Your task to perform on an android device: star an email in the gmail app Image 0: 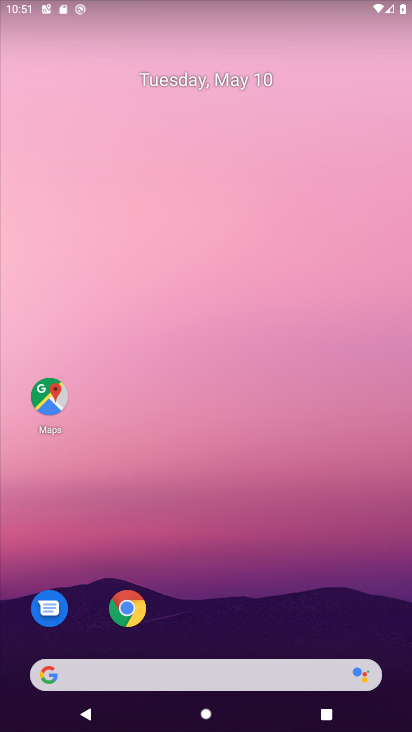
Step 0: drag from (231, 670) to (278, 142)
Your task to perform on an android device: star an email in the gmail app Image 1: 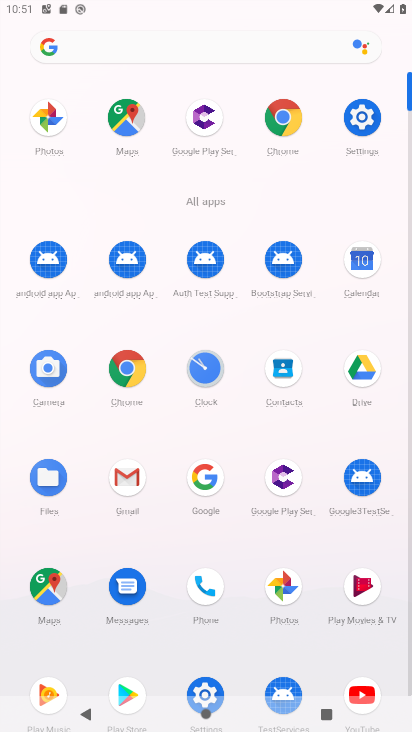
Step 1: click (131, 489)
Your task to perform on an android device: star an email in the gmail app Image 2: 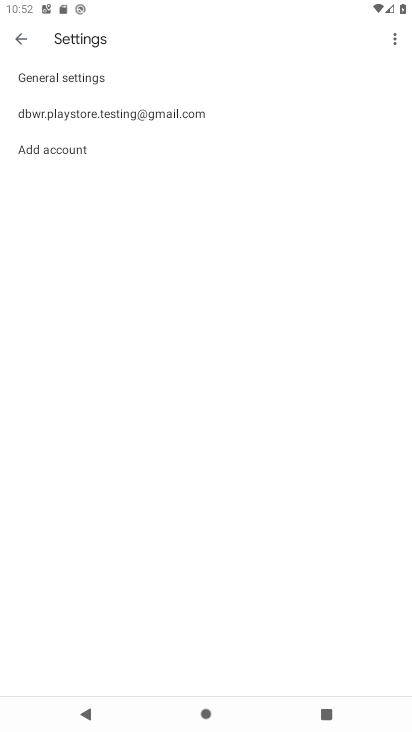
Step 2: click (11, 35)
Your task to perform on an android device: star an email in the gmail app Image 3: 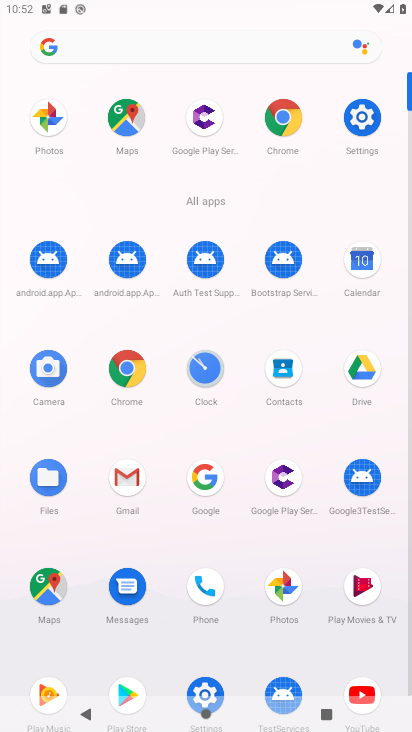
Step 3: click (118, 478)
Your task to perform on an android device: star an email in the gmail app Image 4: 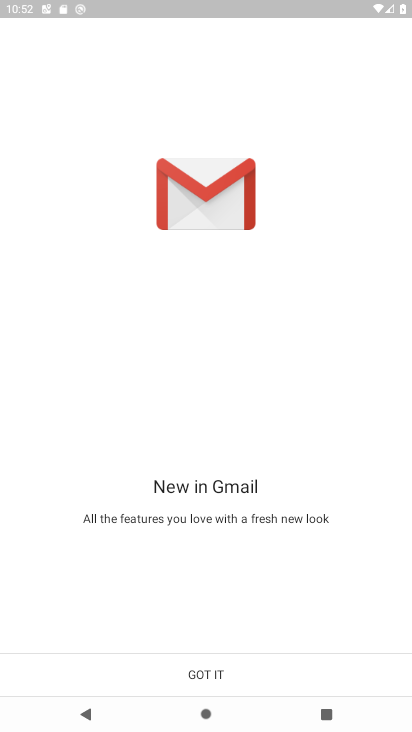
Step 4: click (247, 673)
Your task to perform on an android device: star an email in the gmail app Image 5: 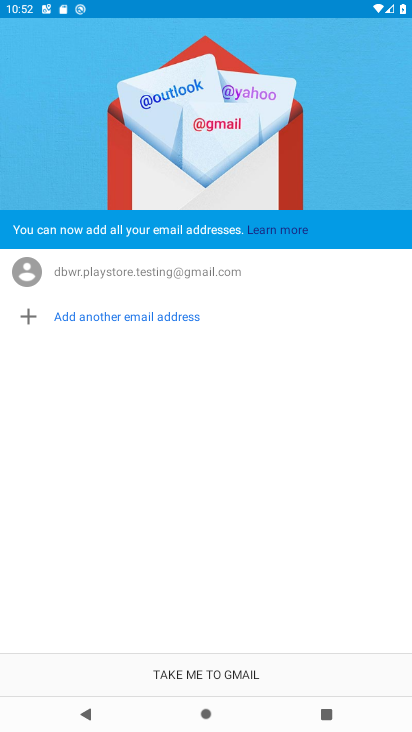
Step 5: click (229, 693)
Your task to perform on an android device: star an email in the gmail app Image 6: 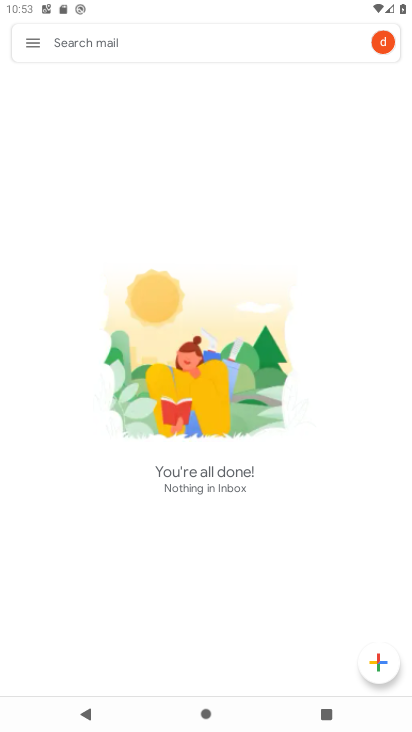
Step 6: click (35, 41)
Your task to perform on an android device: star an email in the gmail app Image 7: 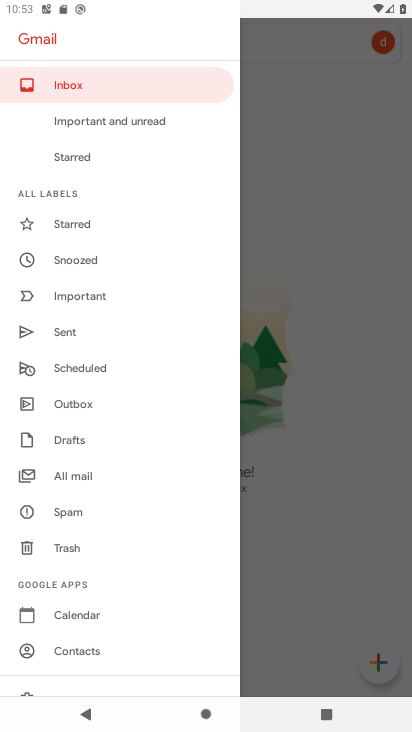
Step 7: click (102, 474)
Your task to perform on an android device: star an email in the gmail app Image 8: 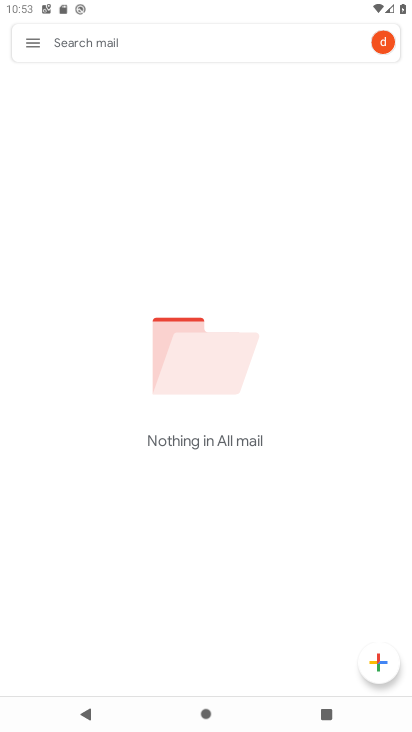
Step 8: task complete